Your task to perform on an android device: turn notification dots on Image 0: 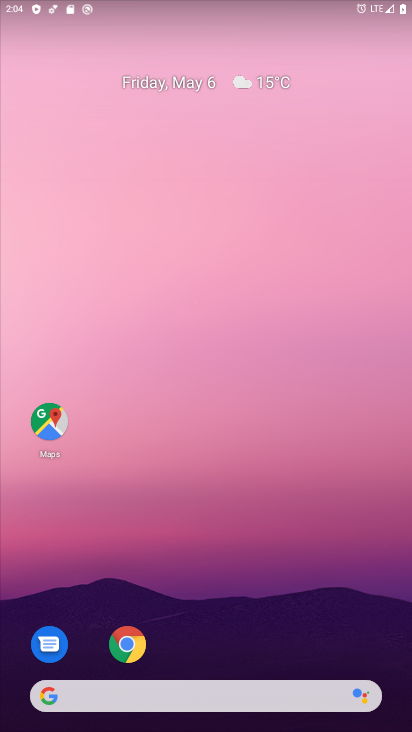
Step 0: drag from (274, 624) to (207, 184)
Your task to perform on an android device: turn notification dots on Image 1: 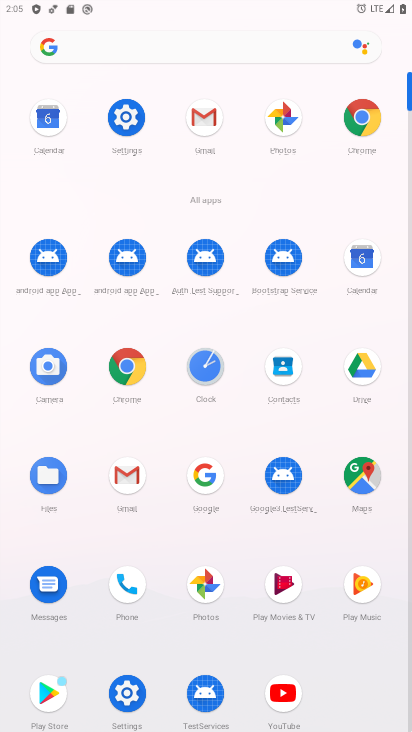
Step 1: click (133, 124)
Your task to perform on an android device: turn notification dots on Image 2: 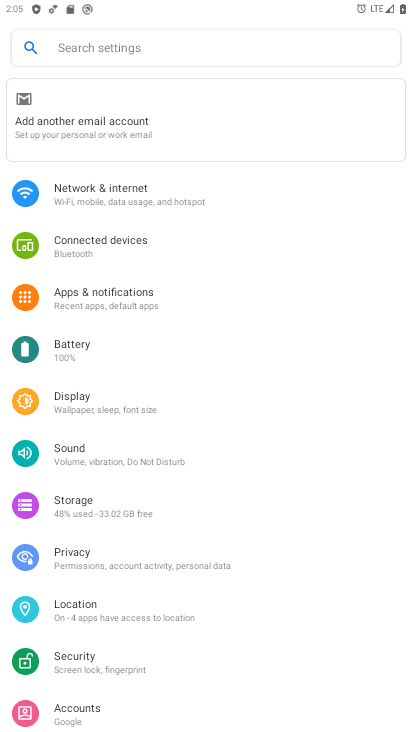
Step 2: click (214, 294)
Your task to perform on an android device: turn notification dots on Image 3: 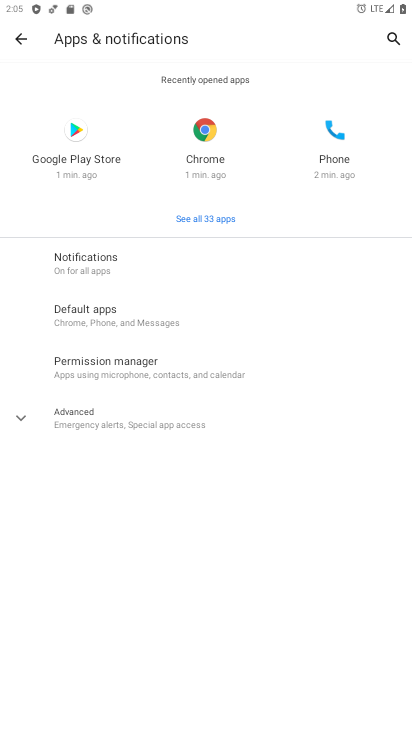
Step 3: click (212, 262)
Your task to perform on an android device: turn notification dots on Image 4: 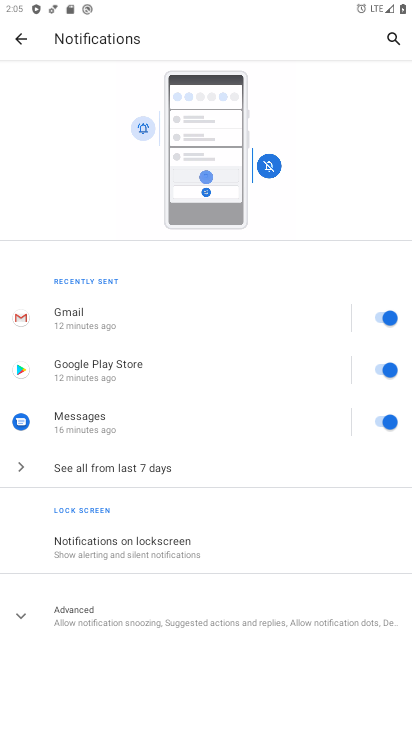
Step 4: drag from (212, 555) to (204, 394)
Your task to perform on an android device: turn notification dots on Image 5: 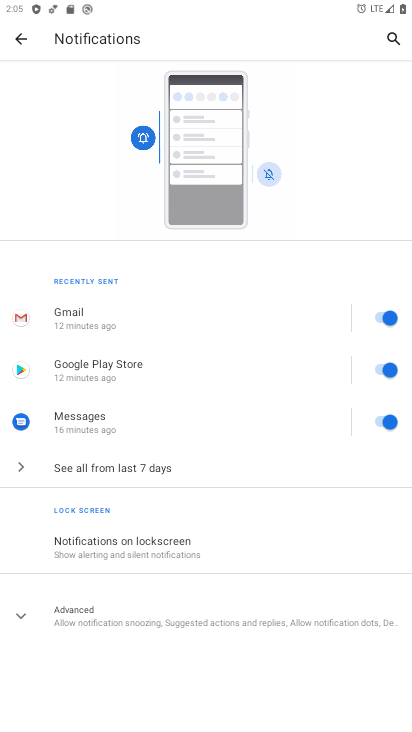
Step 5: click (178, 616)
Your task to perform on an android device: turn notification dots on Image 6: 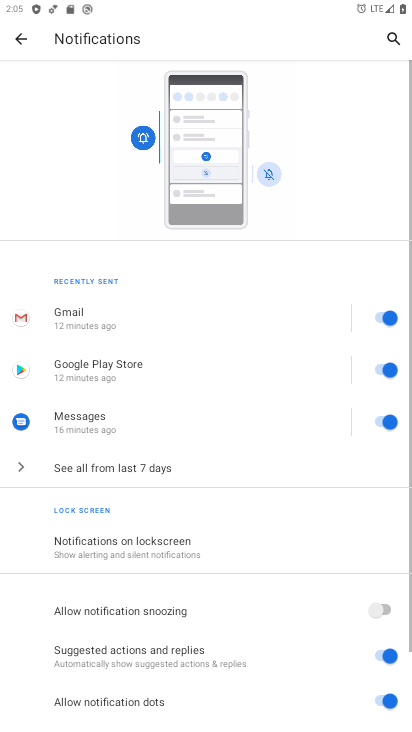
Step 6: task complete